Your task to perform on an android device: allow notifications from all sites in the chrome app Image 0: 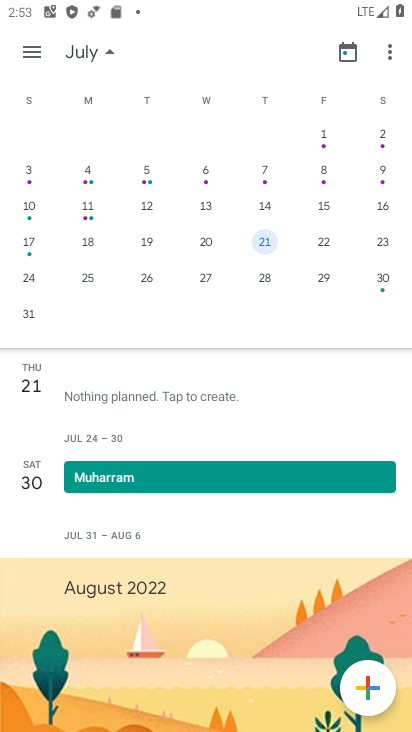
Step 0: press home button
Your task to perform on an android device: allow notifications from all sites in the chrome app Image 1: 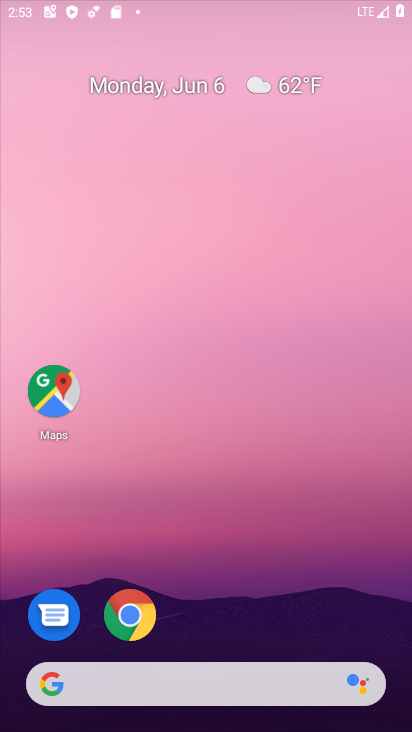
Step 1: drag from (271, 704) to (353, 155)
Your task to perform on an android device: allow notifications from all sites in the chrome app Image 2: 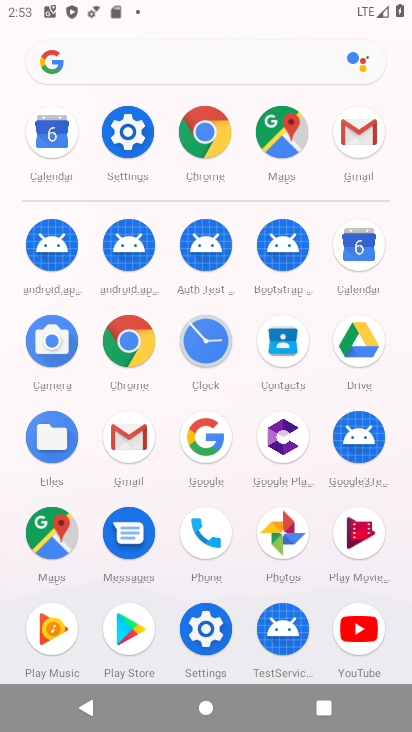
Step 2: click (140, 348)
Your task to perform on an android device: allow notifications from all sites in the chrome app Image 3: 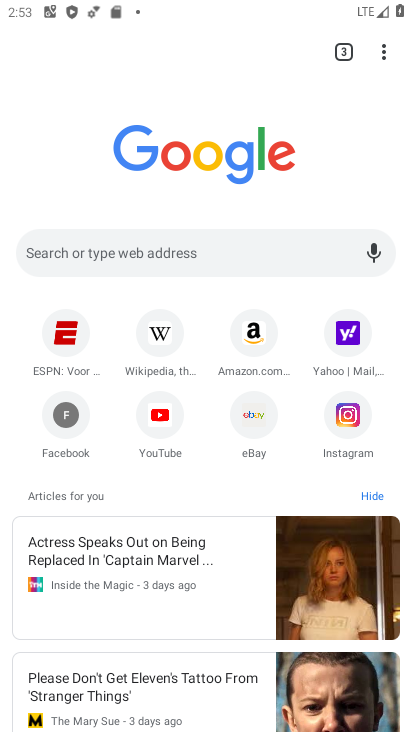
Step 3: drag from (383, 51) to (248, 435)
Your task to perform on an android device: allow notifications from all sites in the chrome app Image 4: 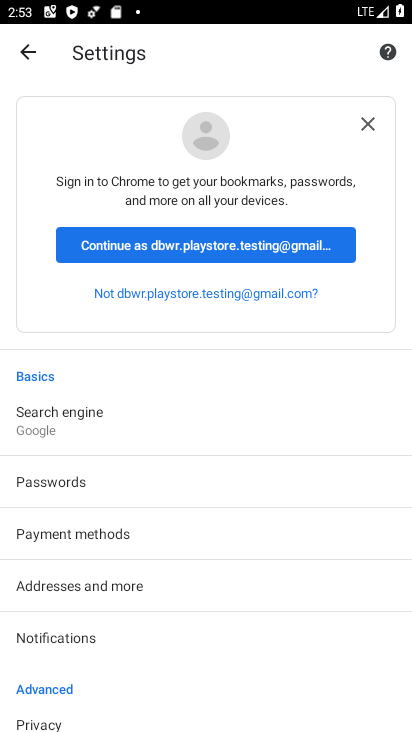
Step 4: drag from (98, 680) to (136, 358)
Your task to perform on an android device: allow notifications from all sites in the chrome app Image 5: 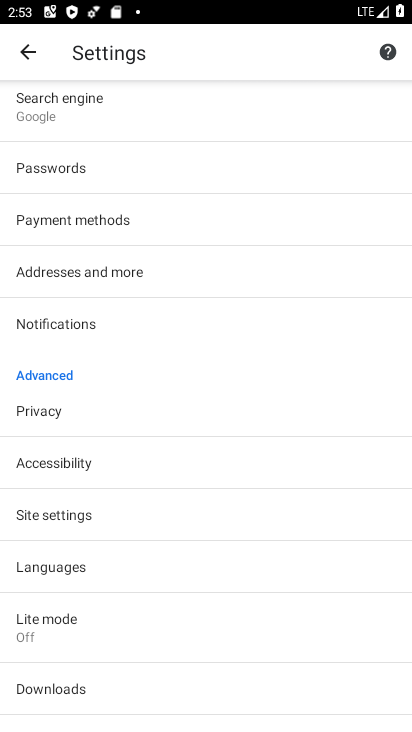
Step 5: click (84, 568)
Your task to perform on an android device: allow notifications from all sites in the chrome app Image 6: 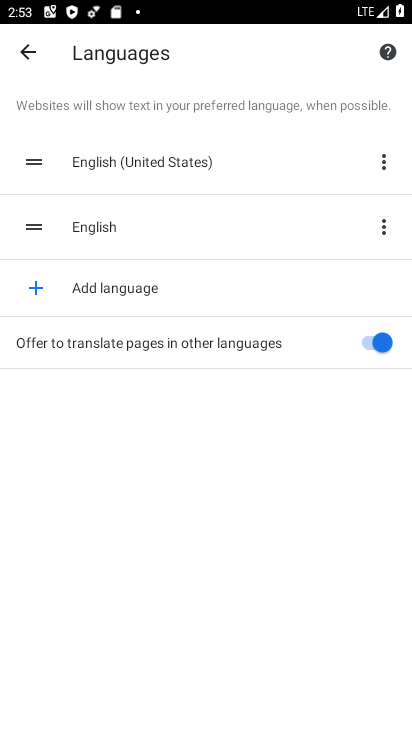
Step 6: press back button
Your task to perform on an android device: allow notifications from all sites in the chrome app Image 7: 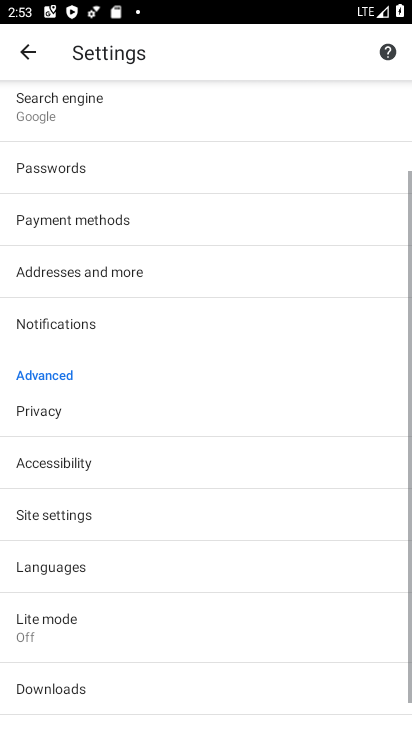
Step 7: click (132, 511)
Your task to perform on an android device: allow notifications from all sites in the chrome app Image 8: 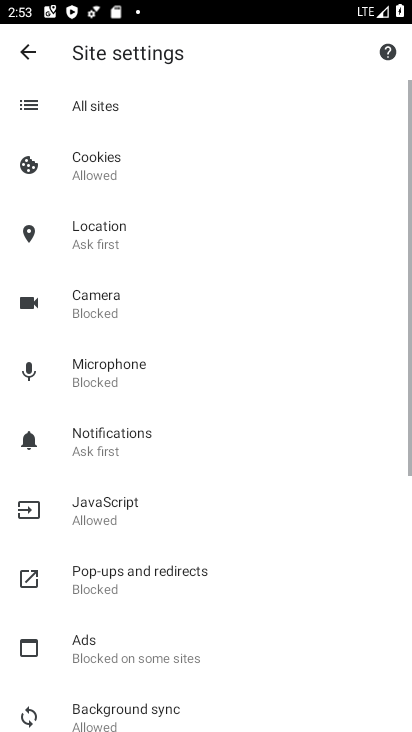
Step 8: click (167, 449)
Your task to perform on an android device: allow notifications from all sites in the chrome app Image 9: 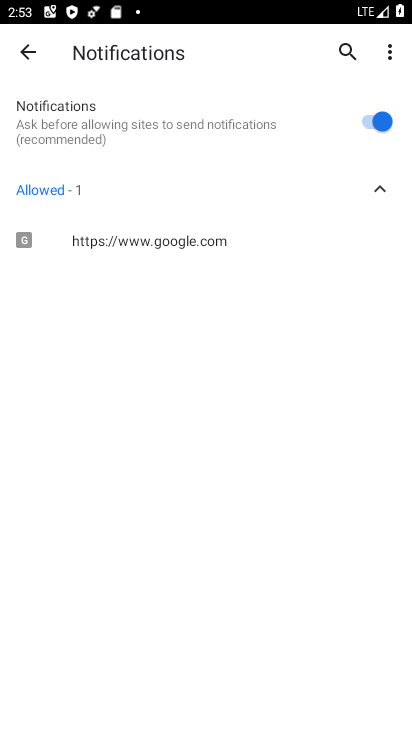
Step 9: task complete